Your task to perform on an android device: Go to notification settings Image 0: 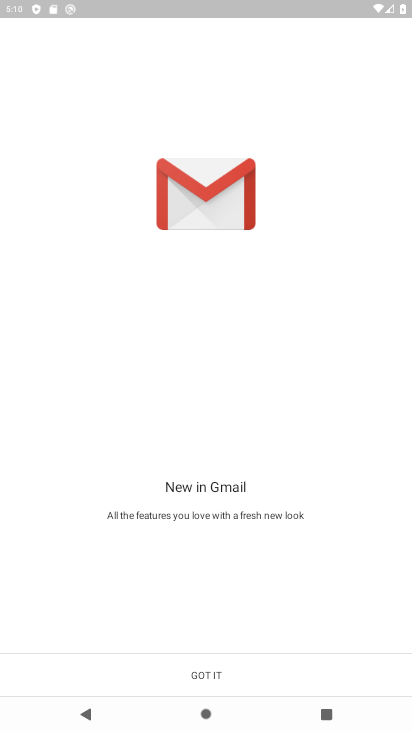
Step 0: press home button
Your task to perform on an android device: Go to notification settings Image 1: 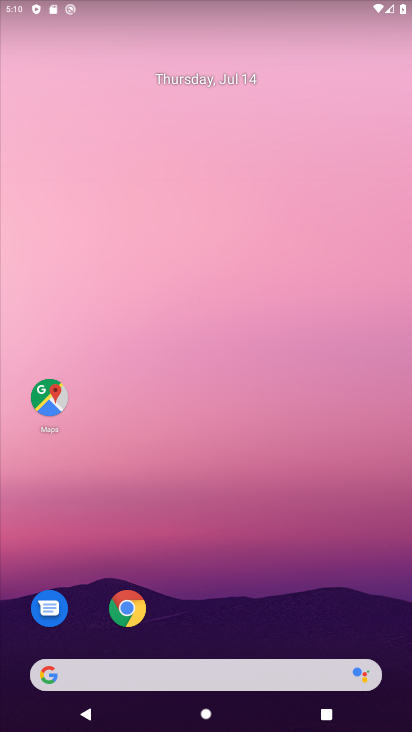
Step 1: drag from (218, 670) to (332, 167)
Your task to perform on an android device: Go to notification settings Image 2: 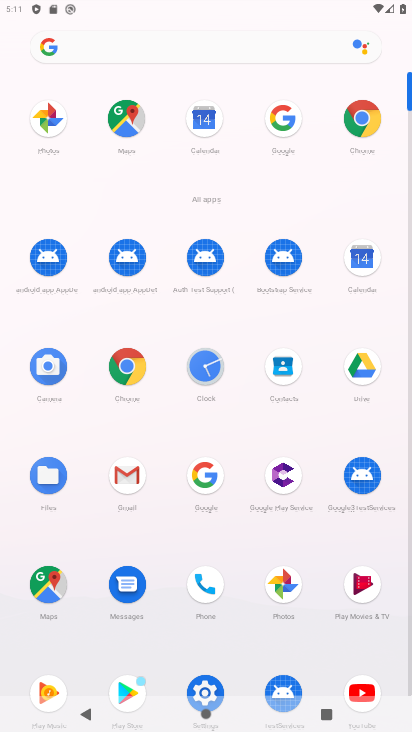
Step 2: click (201, 687)
Your task to perform on an android device: Go to notification settings Image 3: 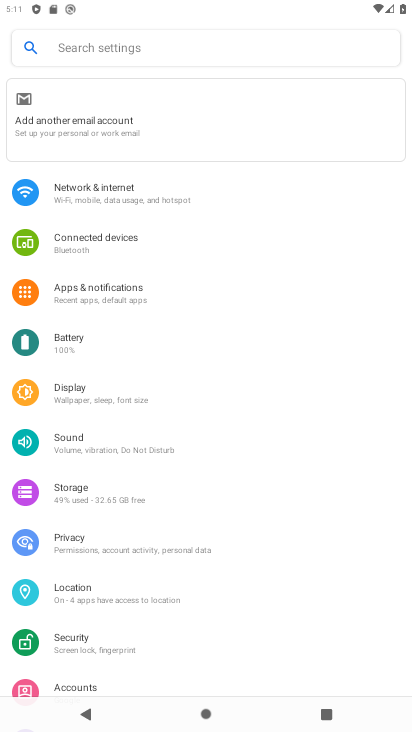
Step 3: click (101, 295)
Your task to perform on an android device: Go to notification settings Image 4: 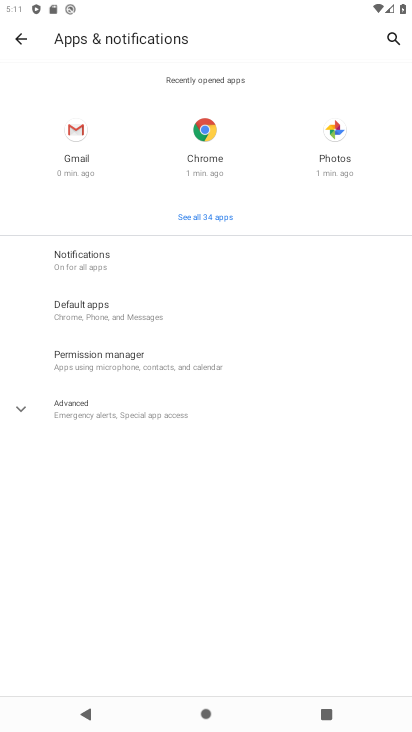
Step 4: click (77, 257)
Your task to perform on an android device: Go to notification settings Image 5: 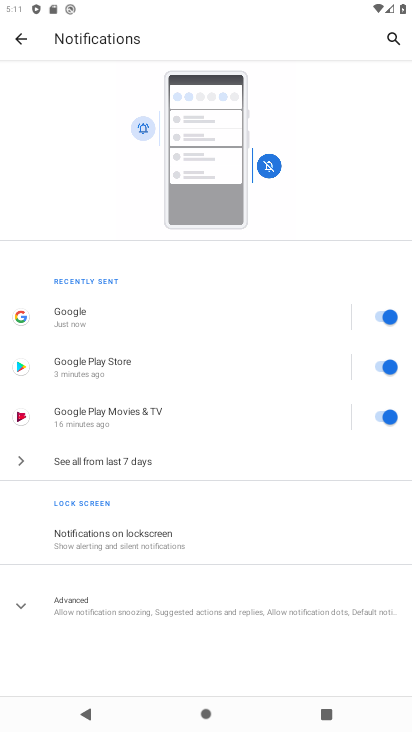
Step 5: task complete